Your task to perform on an android device: Go to internet settings Image 0: 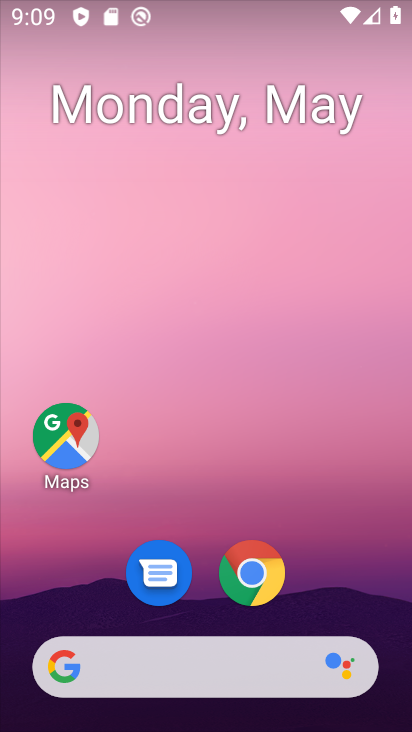
Step 0: drag from (403, 682) to (181, 185)
Your task to perform on an android device: Go to internet settings Image 1: 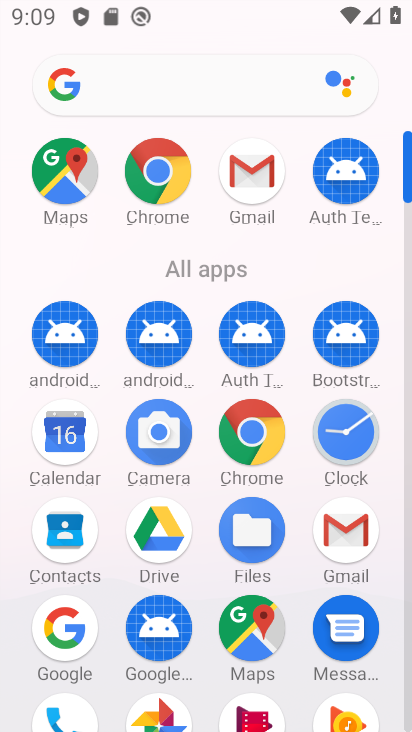
Step 1: drag from (294, 628) to (223, 108)
Your task to perform on an android device: Go to internet settings Image 2: 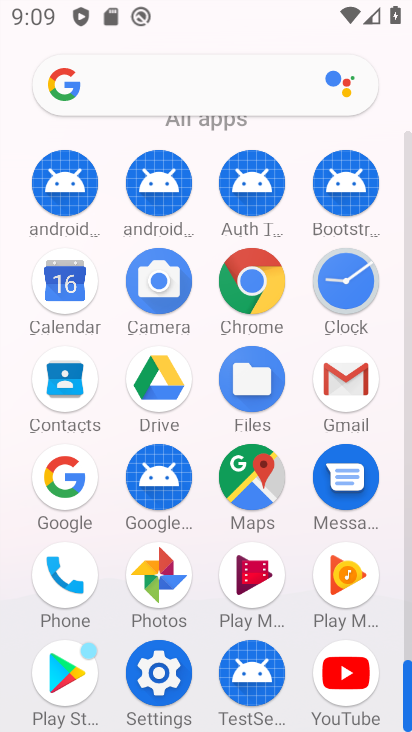
Step 2: click (167, 668)
Your task to perform on an android device: Go to internet settings Image 3: 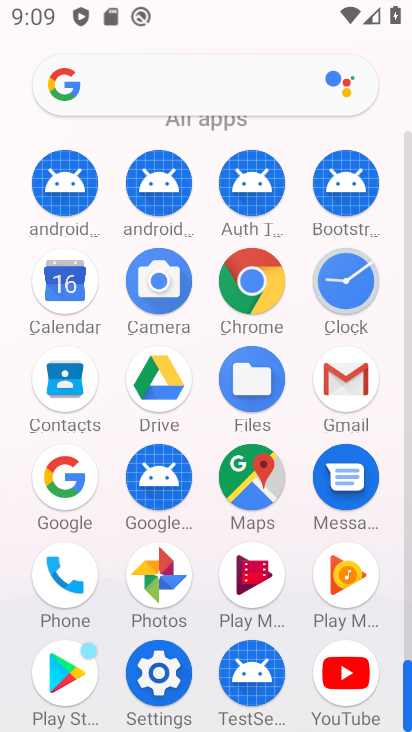
Step 3: click (167, 668)
Your task to perform on an android device: Go to internet settings Image 4: 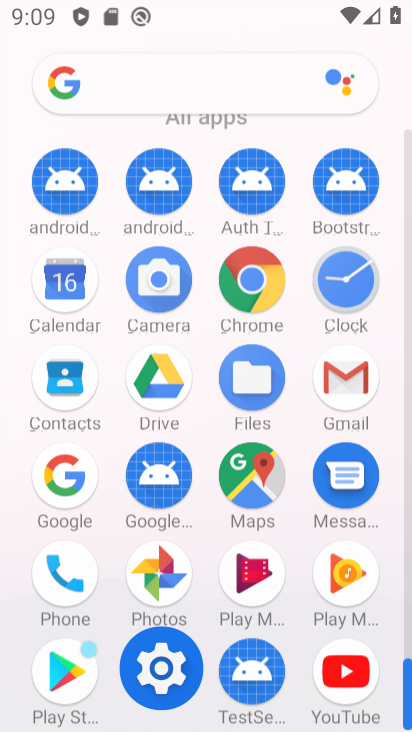
Step 4: click (167, 668)
Your task to perform on an android device: Go to internet settings Image 5: 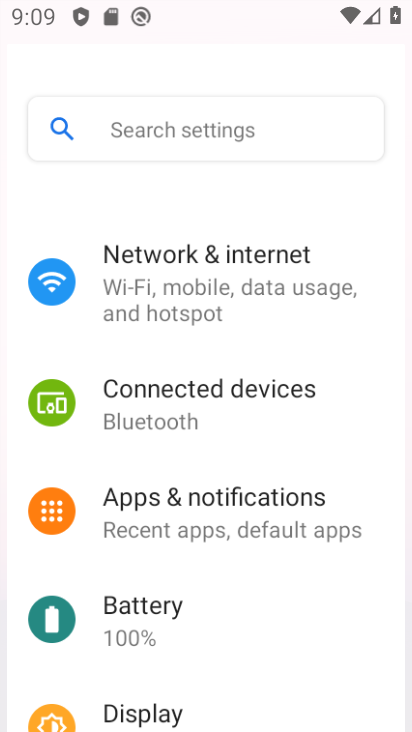
Step 5: click (165, 666)
Your task to perform on an android device: Go to internet settings Image 6: 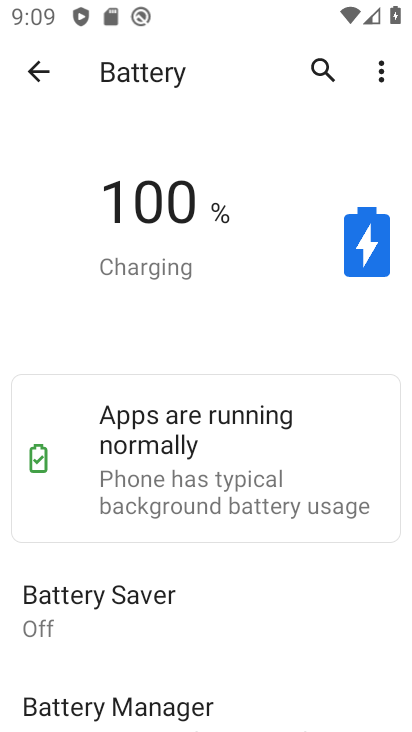
Step 6: click (39, 66)
Your task to perform on an android device: Go to internet settings Image 7: 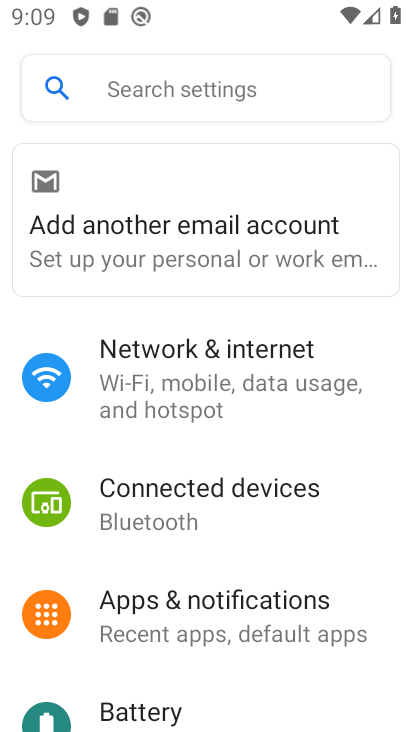
Step 7: drag from (175, 557) to (120, 154)
Your task to perform on an android device: Go to internet settings Image 8: 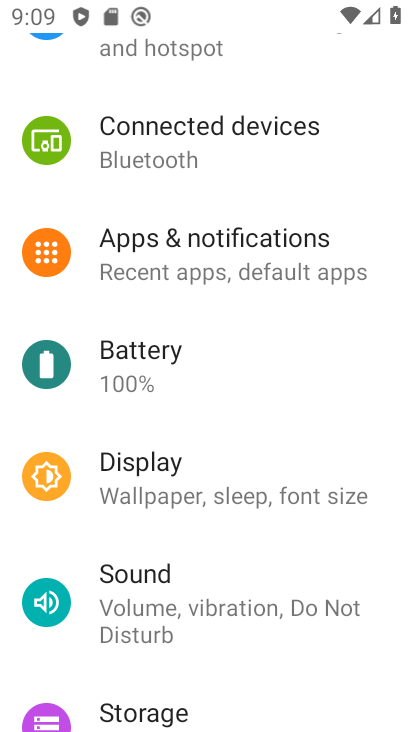
Step 8: drag from (167, 541) to (165, 185)
Your task to perform on an android device: Go to internet settings Image 9: 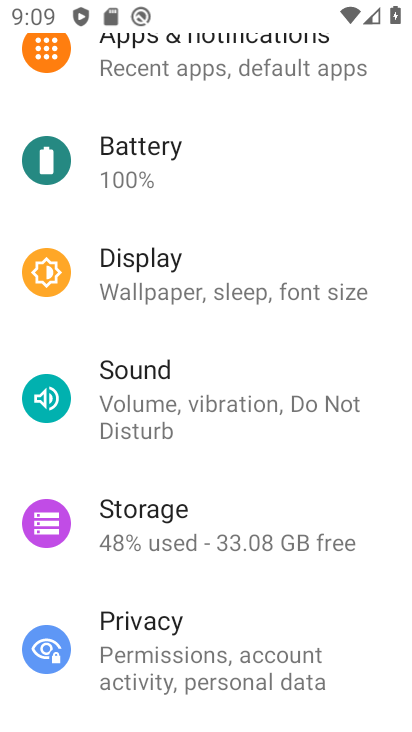
Step 9: drag from (140, 287) to (174, 519)
Your task to perform on an android device: Go to internet settings Image 10: 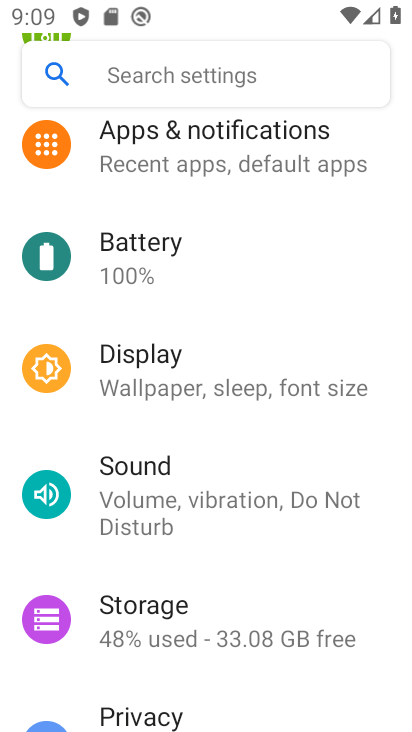
Step 10: drag from (143, 267) to (193, 587)
Your task to perform on an android device: Go to internet settings Image 11: 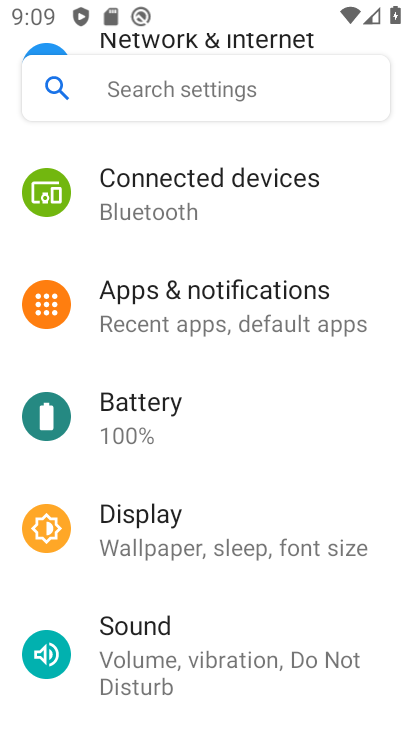
Step 11: drag from (192, 210) to (225, 567)
Your task to perform on an android device: Go to internet settings Image 12: 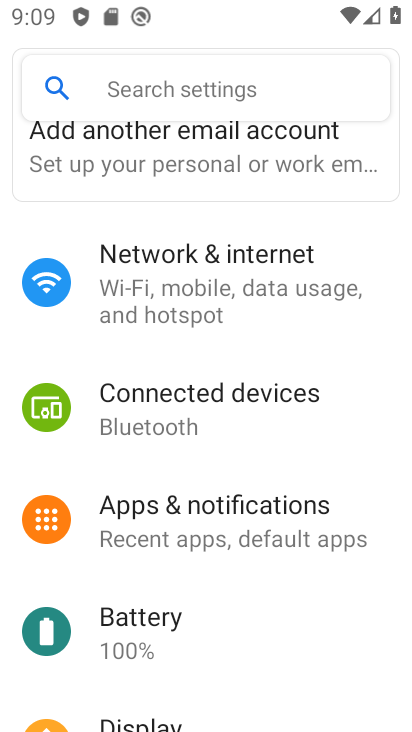
Step 12: drag from (207, 452) to (207, 583)
Your task to perform on an android device: Go to internet settings Image 13: 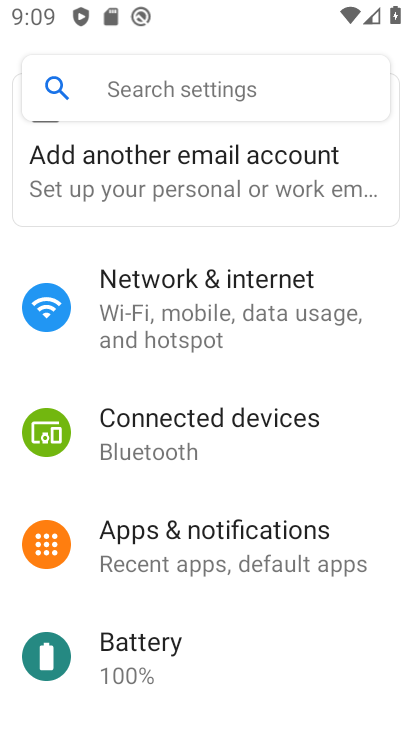
Step 13: click (162, 309)
Your task to perform on an android device: Go to internet settings Image 14: 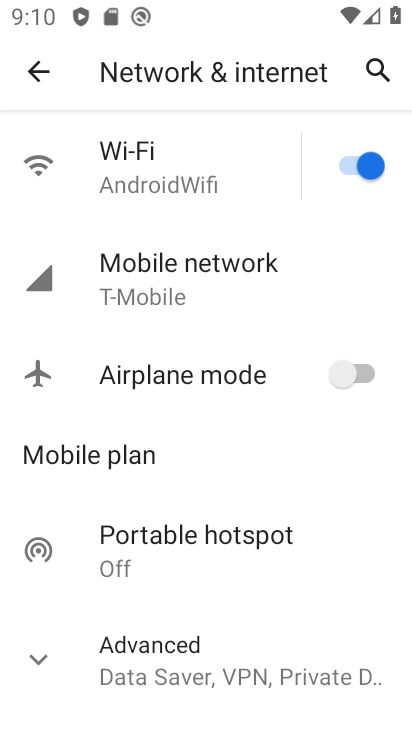
Step 14: click (123, 288)
Your task to perform on an android device: Go to internet settings Image 15: 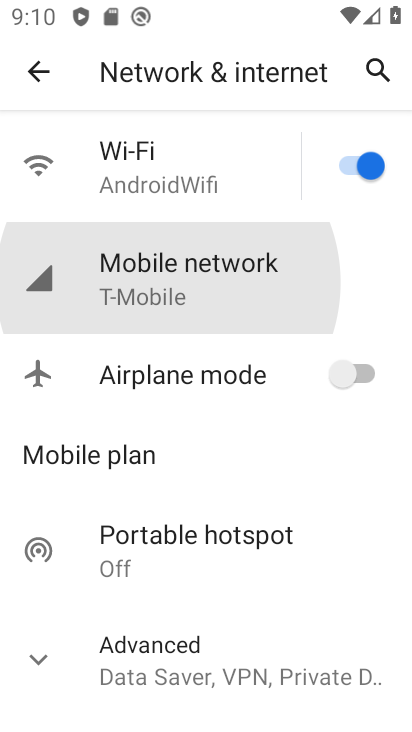
Step 15: click (124, 289)
Your task to perform on an android device: Go to internet settings Image 16: 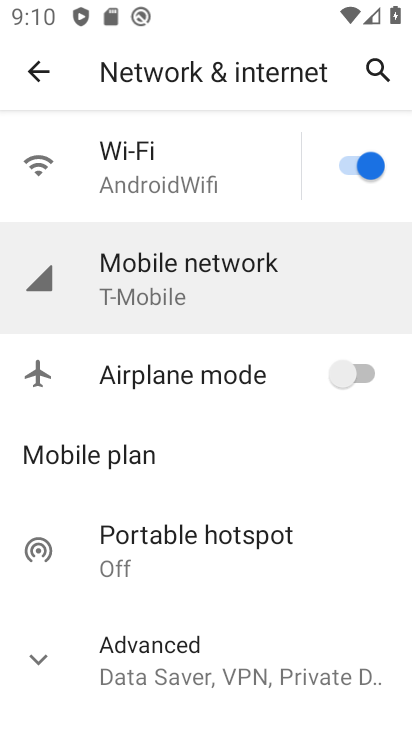
Step 16: click (140, 303)
Your task to perform on an android device: Go to internet settings Image 17: 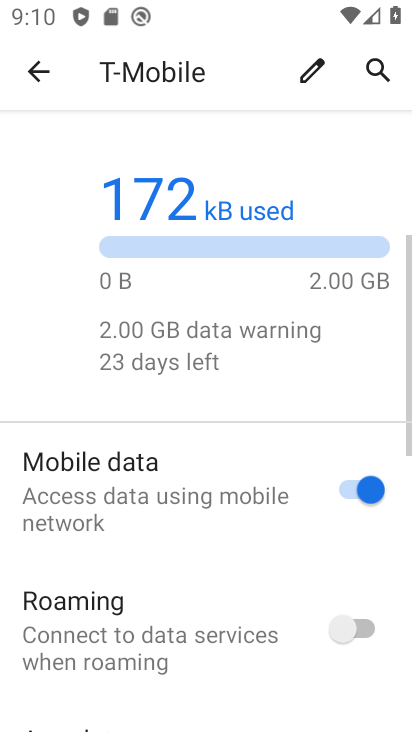
Step 17: task complete